Your task to perform on an android device: empty trash in google photos Image 0: 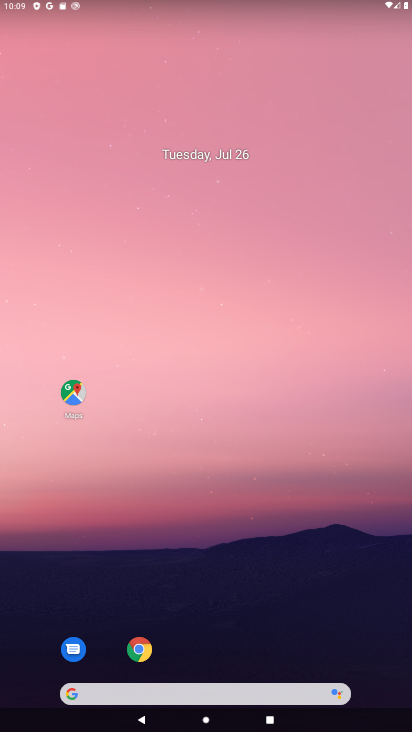
Step 0: drag from (204, 678) to (256, 115)
Your task to perform on an android device: empty trash in google photos Image 1: 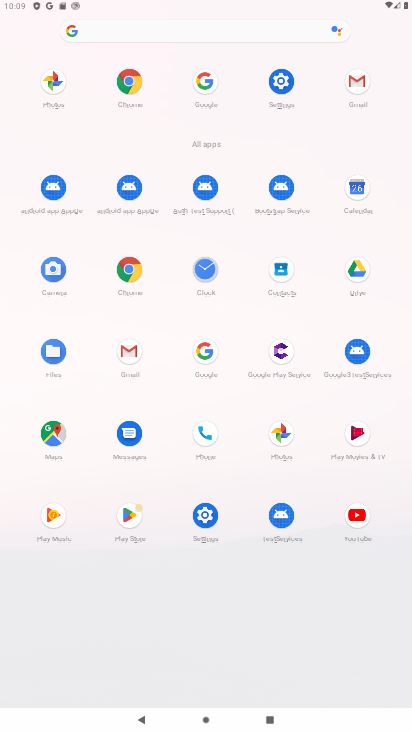
Step 1: click (280, 439)
Your task to perform on an android device: empty trash in google photos Image 2: 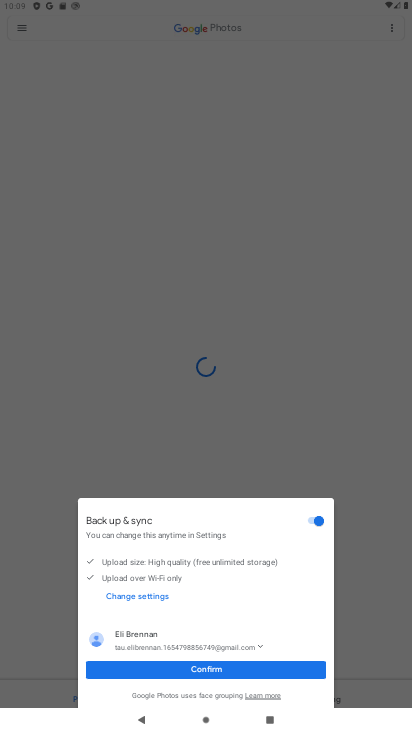
Step 2: click (221, 664)
Your task to perform on an android device: empty trash in google photos Image 3: 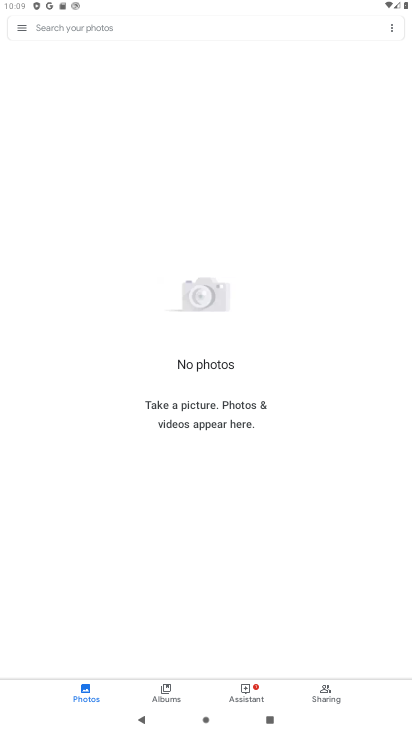
Step 3: click (21, 28)
Your task to perform on an android device: empty trash in google photos Image 4: 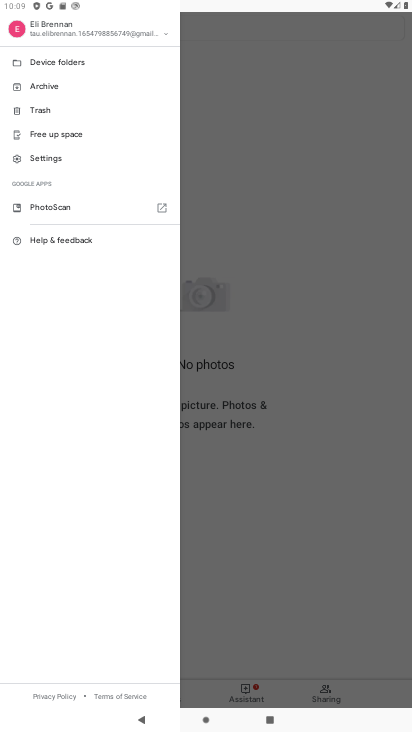
Step 4: click (38, 107)
Your task to perform on an android device: empty trash in google photos Image 5: 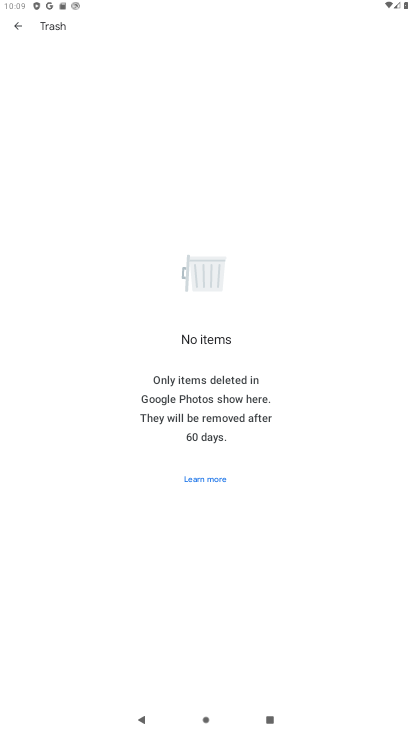
Step 5: task complete